Your task to perform on an android device: Go to battery settings Image 0: 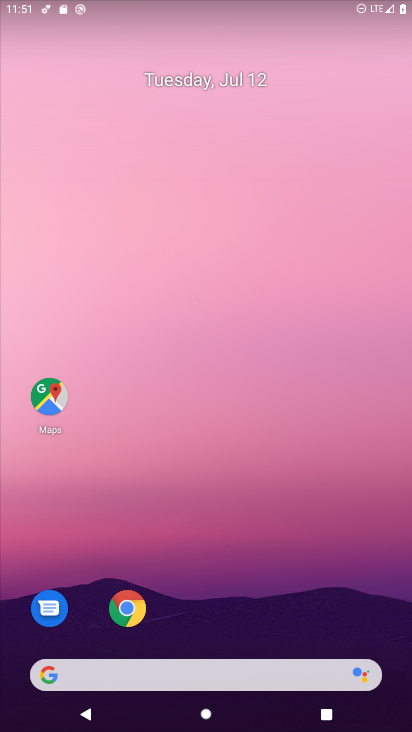
Step 0: drag from (197, 5) to (195, 531)
Your task to perform on an android device: Go to battery settings Image 1: 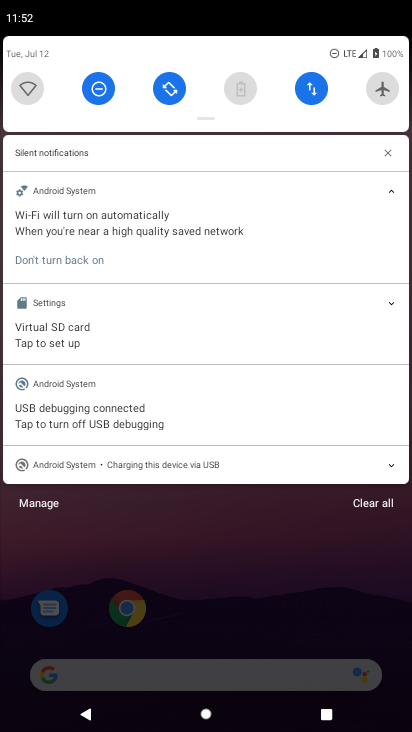
Step 1: click (229, 86)
Your task to perform on an android device: Go to battery settings Image 2: 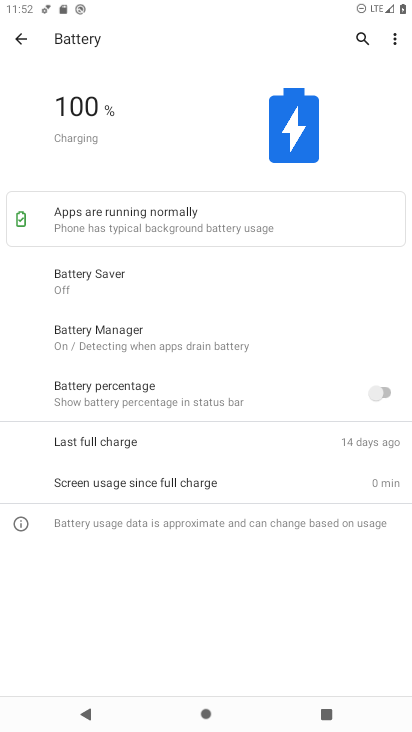
Step 2: task complete